Your task to perform on an android device: Search for vegetarian restaurants on Maps Image 0: 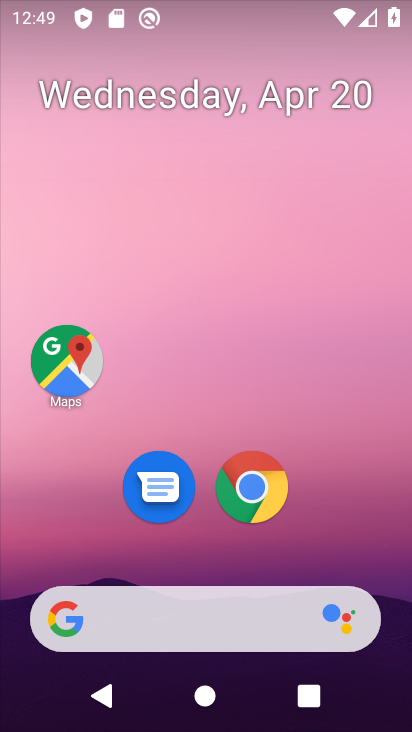
Step 0: drag from (325, 526) to (253, 62)
Your task to perform on an android device: Search for vegetarian restaurants on Maps Image 1: 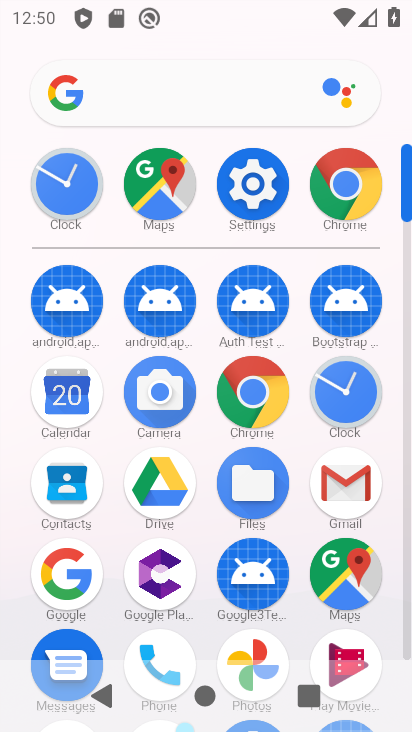
Step 1: click (364, 566)
Your task to perform on an android device: Search for vegetarian restaurants on Maps Image 2: 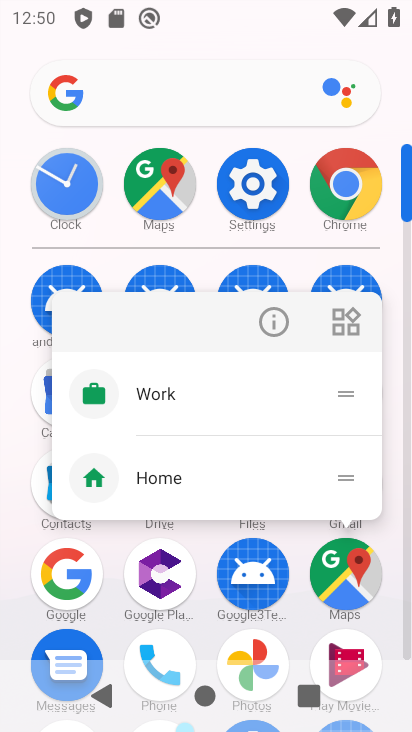
Step 2: click (357, 570)
Your task to perform on an android device: Search for vegetarian restaurants on Maps Image 3: 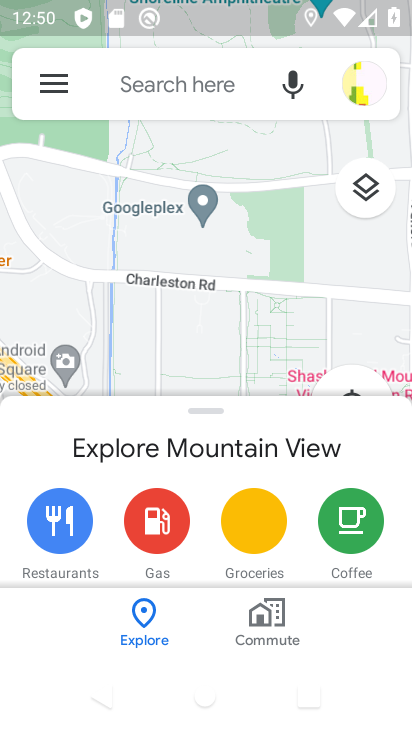
Step 3: click (194, 88)
Your task to perform on an android device: Search for vegetarian restaurants on Maps Image 4: 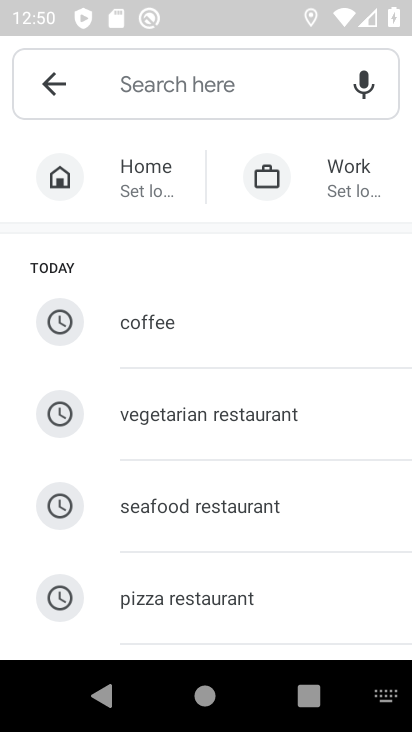
Step 4: click (160, 415)
Your task to perform on an android device: Search for vegetarian restaurants on Maps Image 5: 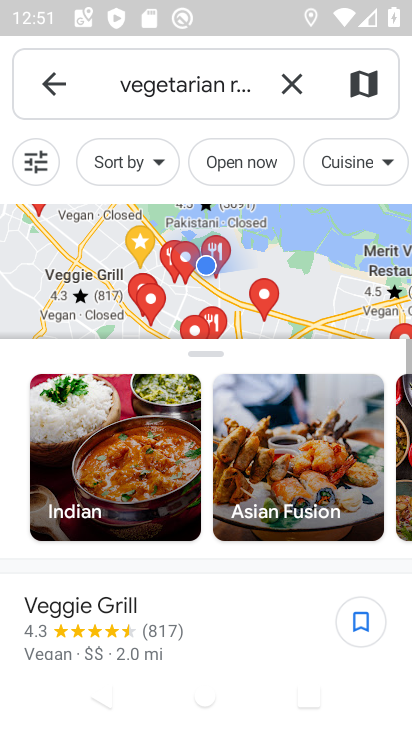
Step 5: task complete